Your task to perform on an android device: Go to wifi settings Image 0: 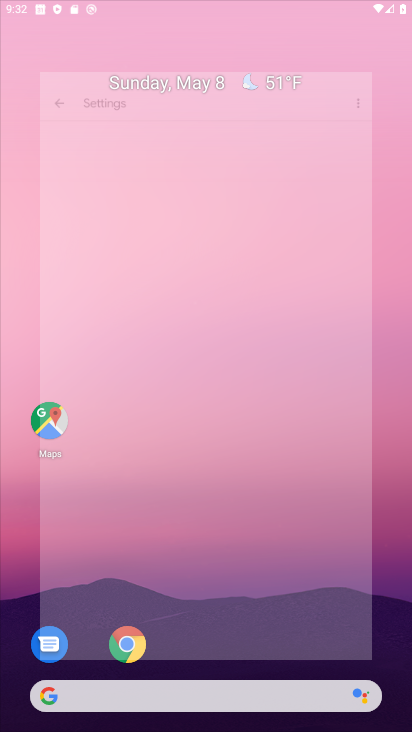
Step 0: drag from (379, 634) to (389, 369)
Your task to perform on an android device: Go to wifi settings Image 1: 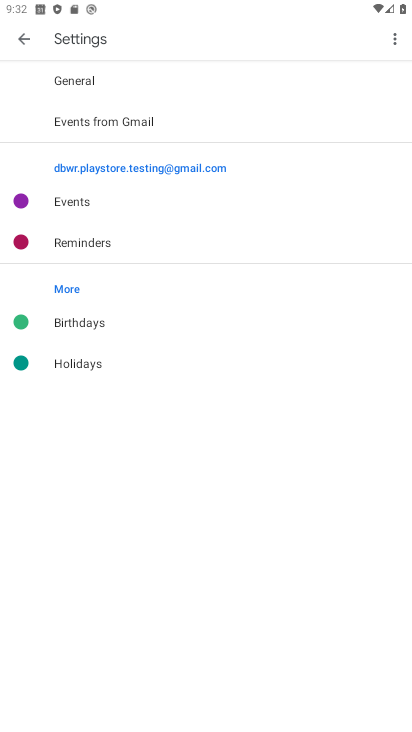
Step 1: press home button
Your task to perform on an android device: Go to wifi settings Image 2: 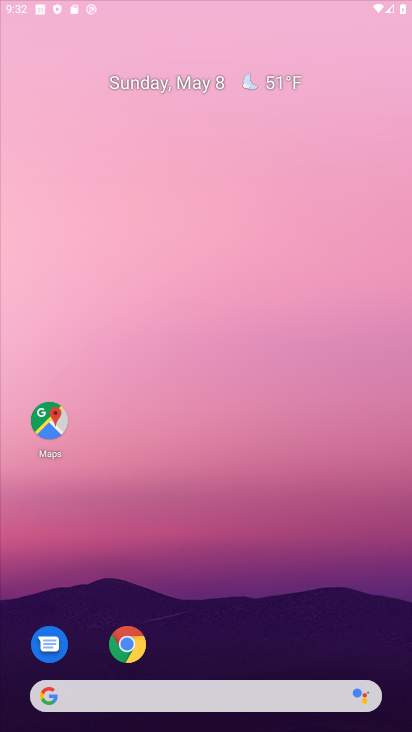
Step 2: drag from (169, 641) to (243, 150)
Your task to perform on an android device: Go to wifi settings Image 3: 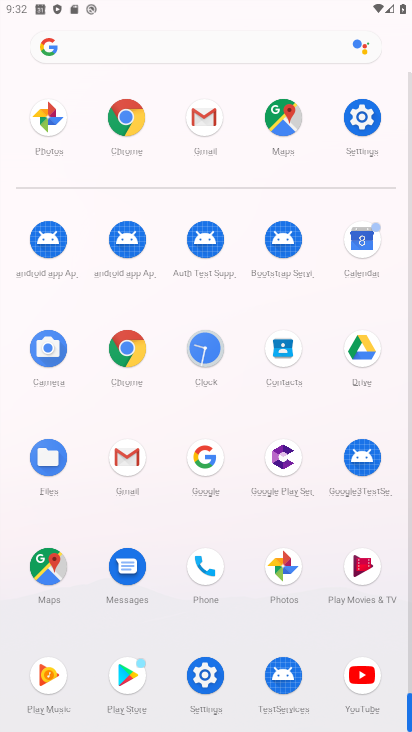
Step 3: drag from (225, 606) to (233, 196)
Your task to perform on an android device: Go to wifi settings Image 4: 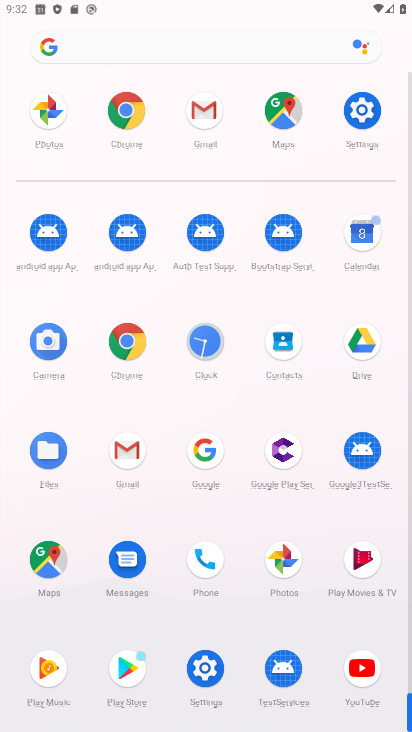
Step 4: click (206, 678)
Your task to perform on an android device: Go to wifi settings Image 5: 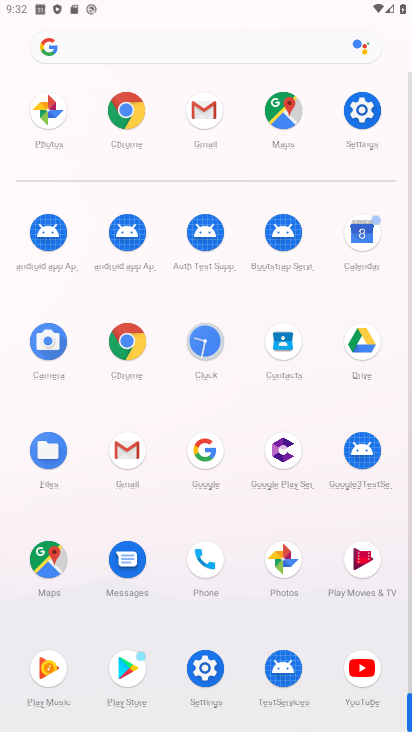
Step 5: click (206, 678)
Your task to perform on an android device: Go to wifi settings Image 6: 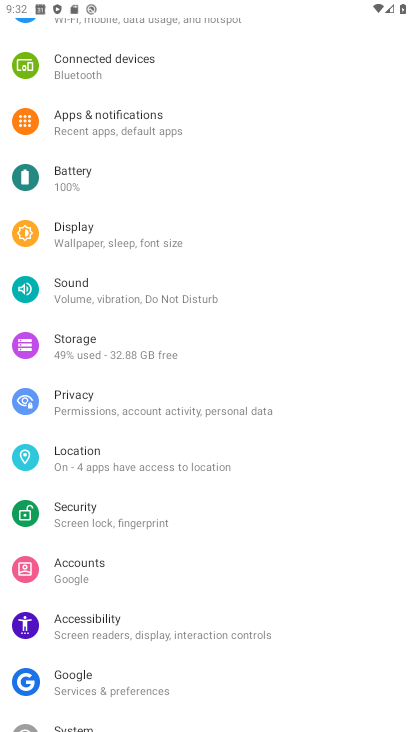
Step 6: drag from (210, 180) to (282, 658)
Your task to perform on an android device: Go to wifi settings Image 7: 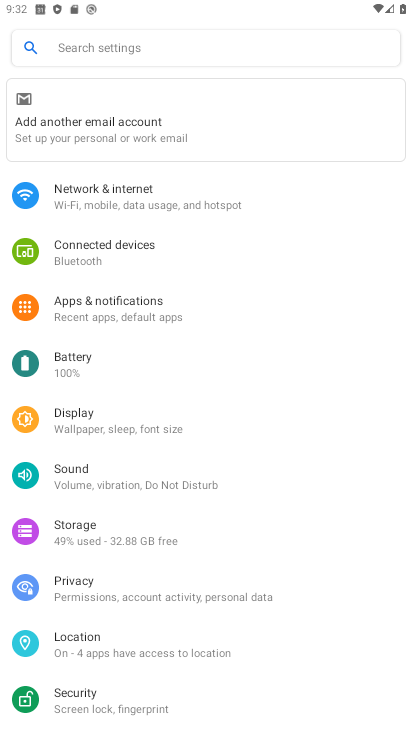
Step 7: drag from (216, 632) to (249, 176)
Your task to perform on an android device: Go to wifi settings Image 8: 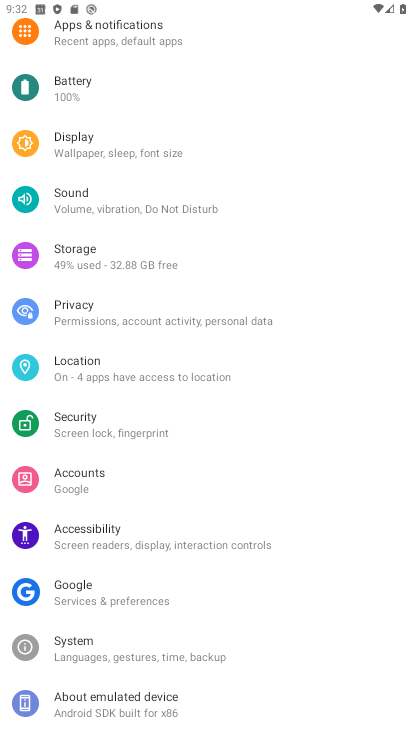
Step 8: drag from (167, 138) to (282, 712)
Your task to perform on an android device: Go to wifi settings Image 9: 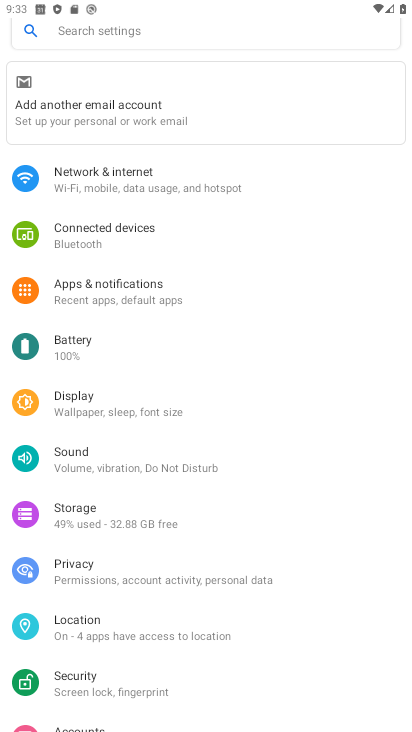
Step 9: click (140, 184)
Your task to perform on an android device: Go to wifi settings Image 10: 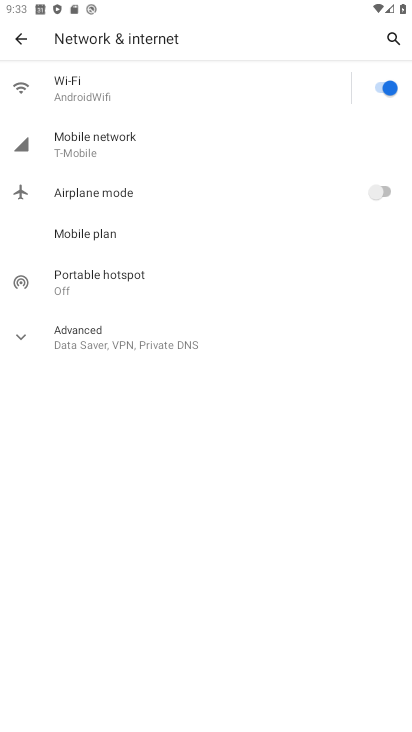
Step 10: click (103, 90)
Your task to perform on an android device: Go to wifi settings Image 11: 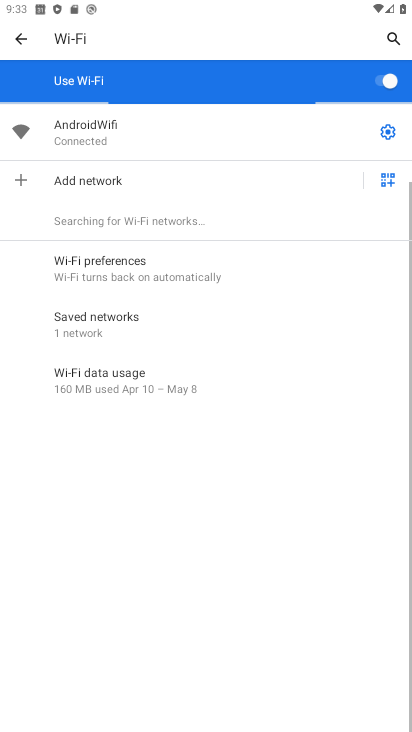
Step 11: click (384, 144)
Your task to perform on an android device: Go to wifi settings Image 12: 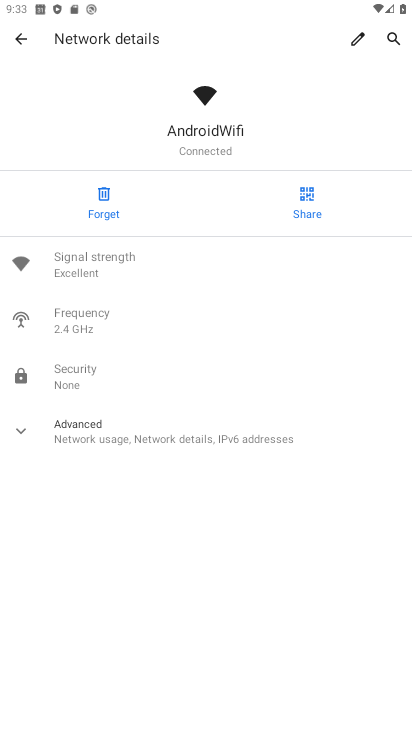
Step 12: task complete